Your task to perform on an android device: turn pop-ups off in chrome Image 0: 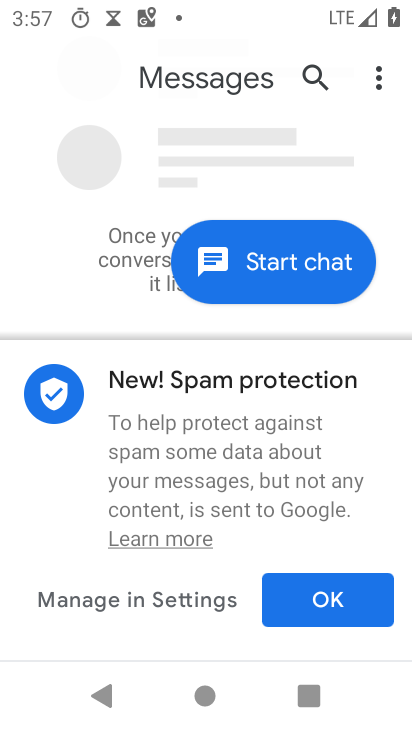
Step 0: press home button
Your task to perform on an android device: turn pop-ups off in chrome Image 1: 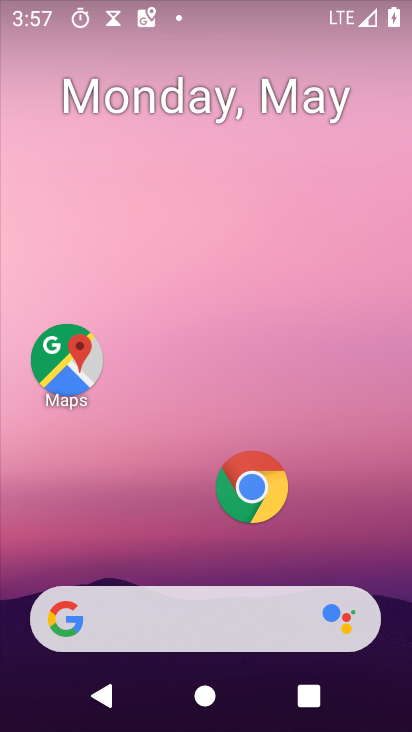
Step 1: click (251, 485)
Your task to perform on an android device: turn pop-ups off in chrome Image 2: 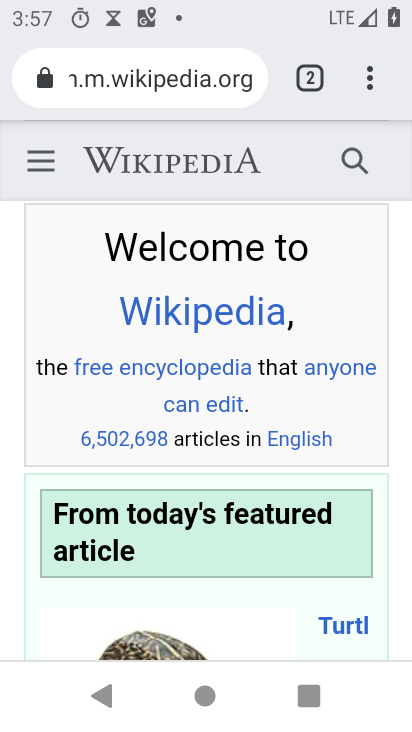
Step 2: click (358, 81)
Your task to perform on an android device: turn pop-ups off in chrome Image 3: 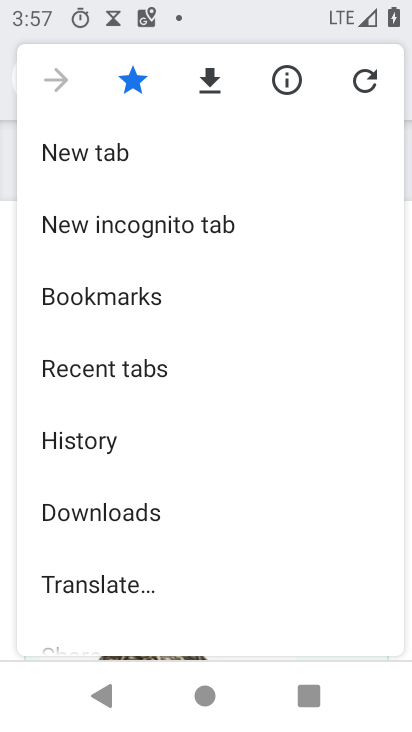
Step 3: drag from (133, 601) to (142, 267)
Your task to perform on an android device: turn pop-ups off in chrome Image 4: 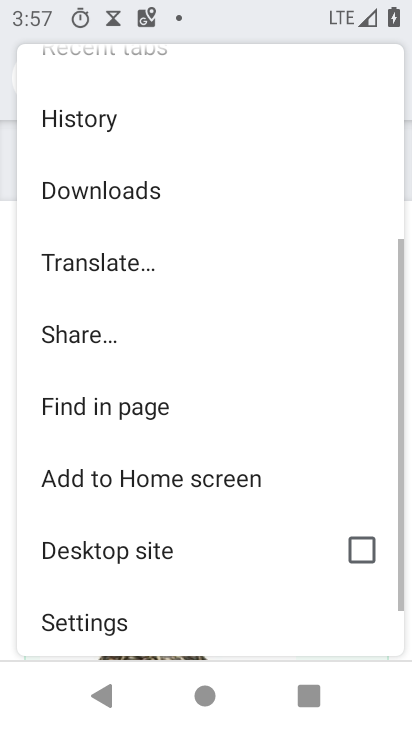
Step 4: click (119, 628)
Your task to perform on an android device: turn pop-ups off in chrome Image 5: 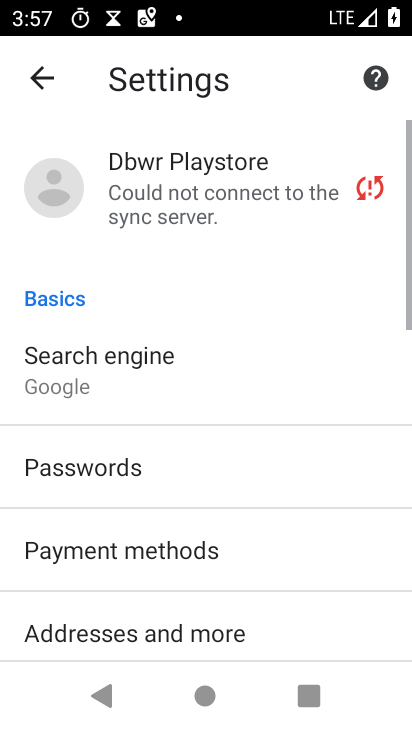
Step 5: drag from (149, 606) to (177, 276)
Your task to perform on an android device: turn pop-ups off in chrome Image 6: 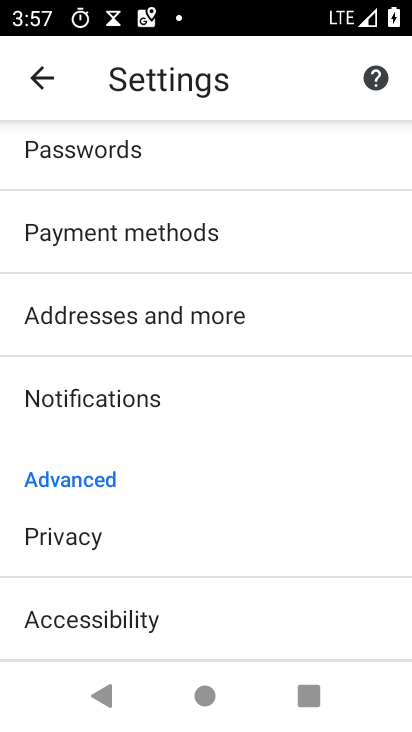
Step 6: drag from (204, 625) to (229, 317)
Your task to perform on an android device: turn pop-ups off in chrome Image 7: 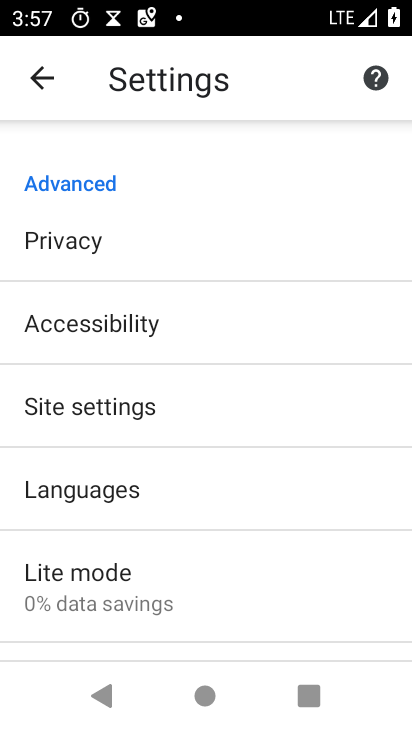
Step 7: click (123, 413)
Your task to perform on an android device: turn pop-ups off in chrome Image 8: 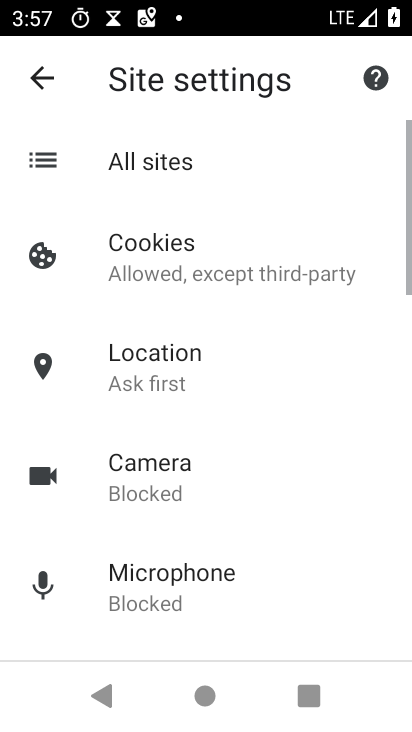
Step 8: drag from (219, 614) to (221, 367)
Your task to perform on an android device: turn pop-ups off in chrome Image 9: 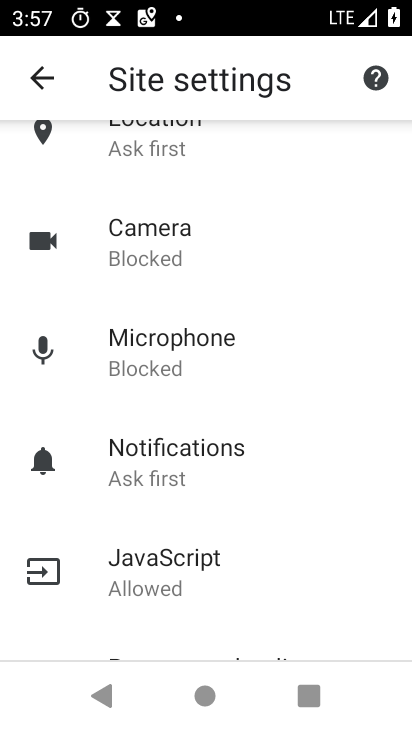
Step 9: drag from (179, 599) to (199, 388)
Your task to perform on an android device: turn pop-ups off in chrome Image 10: 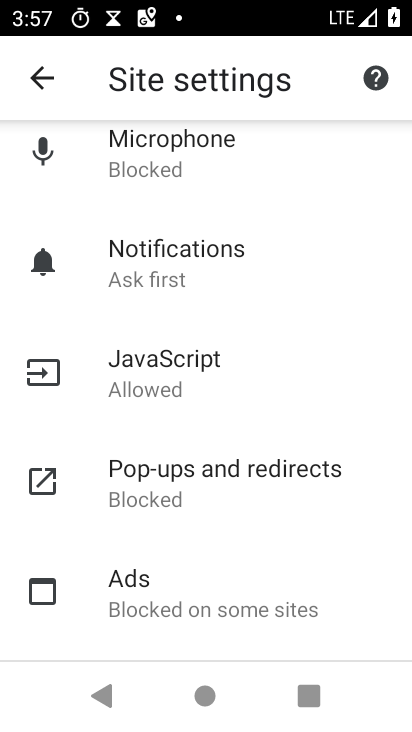
Step 10: click (199, 498)
Your task to perform on an android device: turn pop-ups off in chrome Image 11: 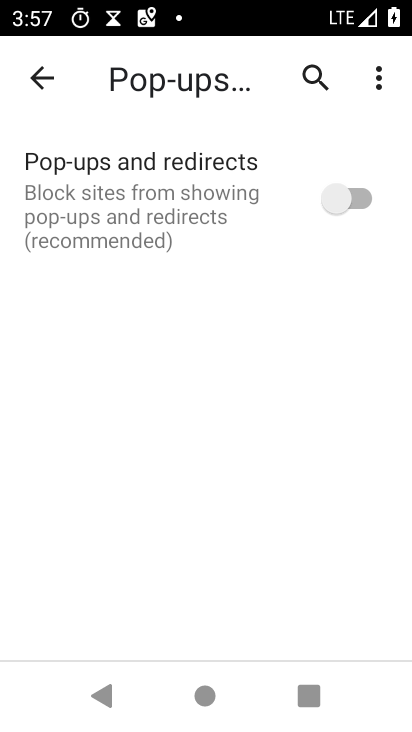
Step 11: task complete